Your task to perform on an android device: Open sound settings Image 0: 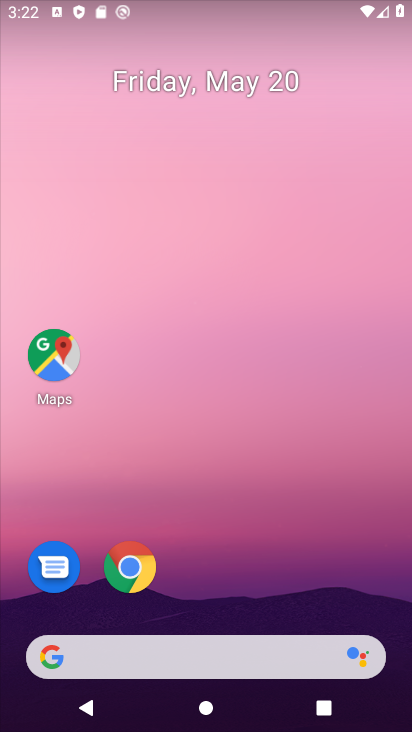
Step 0: drag from (254, 369) to (261, 66)
Your task to perform on an android device: Open sound settings Image 1: 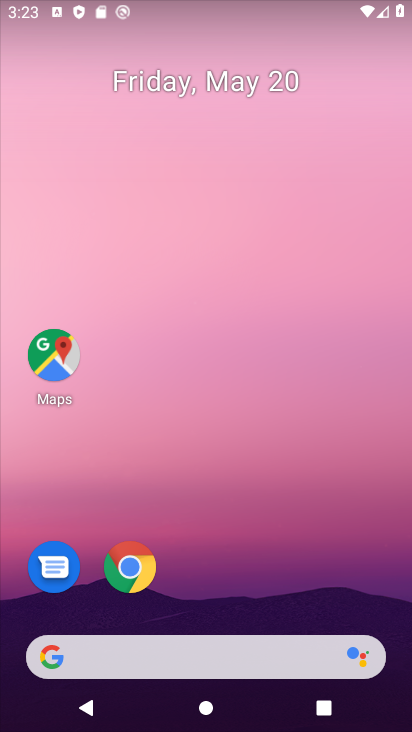
Step 1: drag from (295, 528) to (207, 14)
Your task to perform on an android device: Open sound settings Image 2: 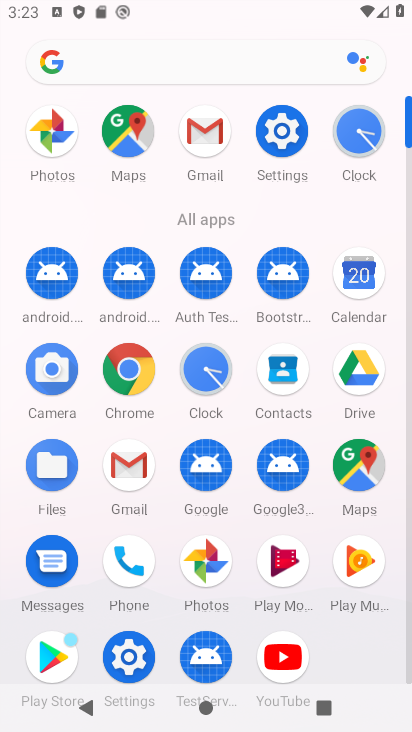
Step 2: click (281, 154)
Your task to perform on an android device: Open sound settings Image 3: 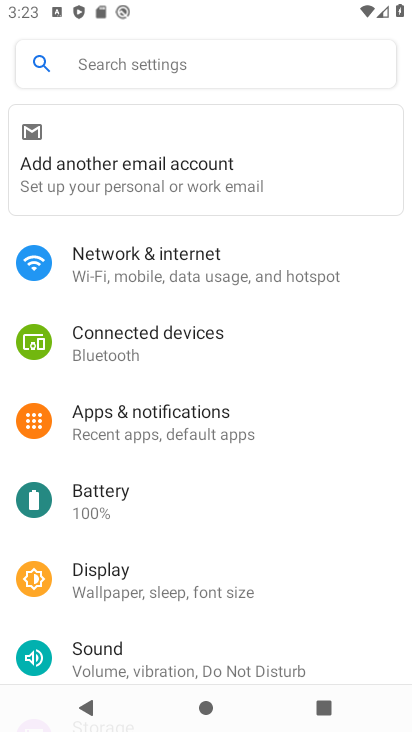
Step 3: drag from (211, 608) to (216, 362)
Your task to perform on an android device: Open sound settings Image 4: 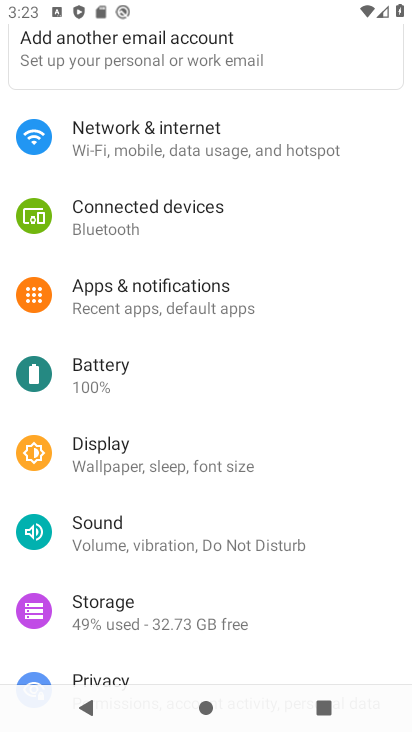
Step 4: click (170, 544)
Your task to perform on an android device: Open sound settings Image 5: 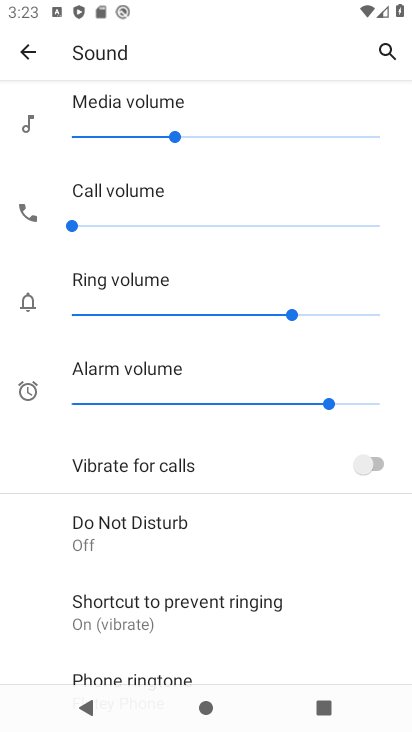
Step 5: task complete